Your task to perform on an android device: uninstall "Viber Messenger" Image 0: 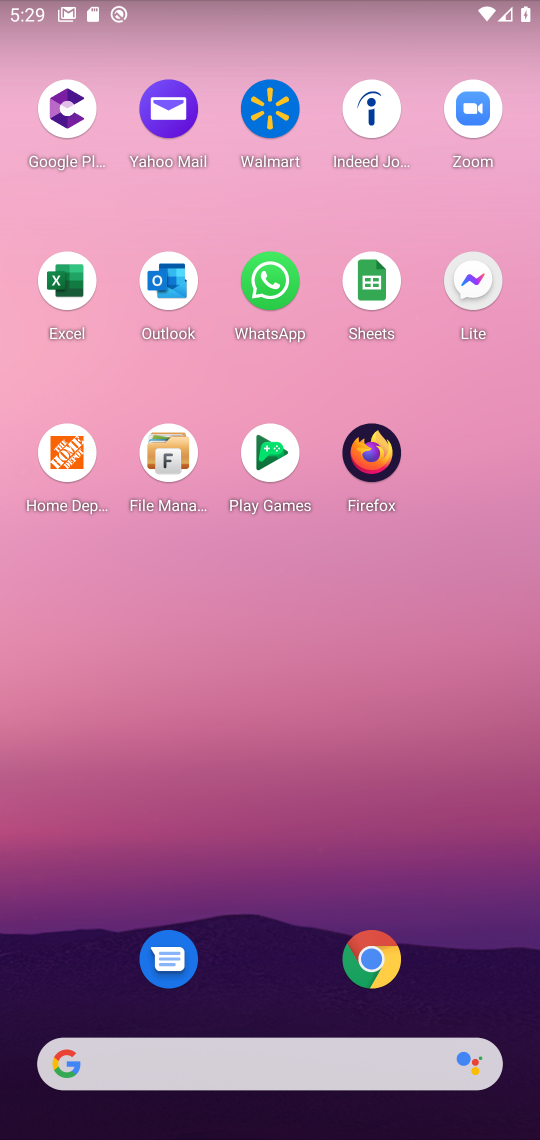
Step 0: drag from (253, 1014) to (292, 368)
Your task to perform on an android device: uninstall "Viber Messenger" Image 1: 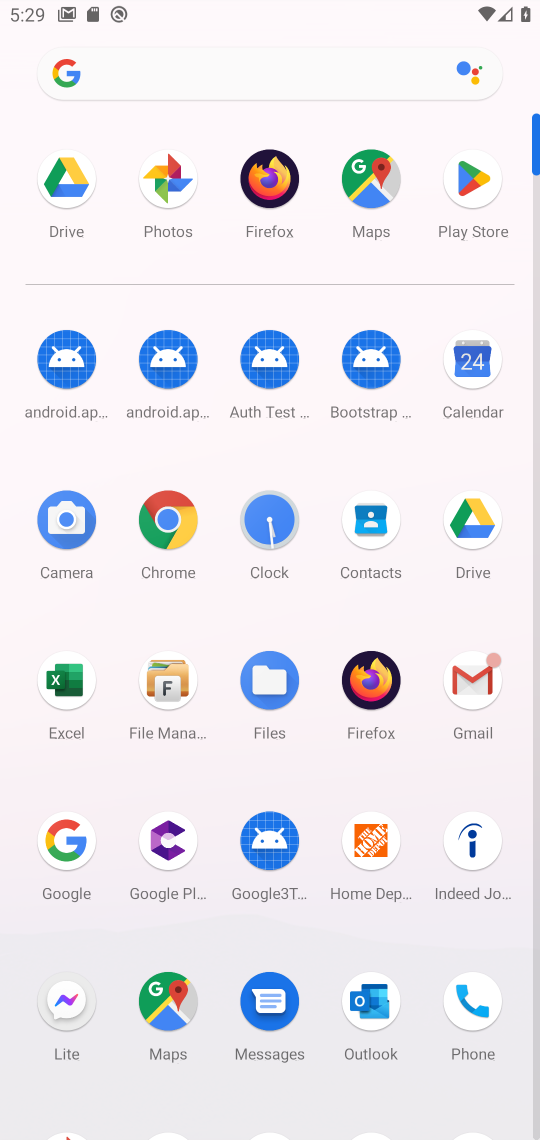
Step 1: click (467, 187)
Your task to perform on an android device: uninstall "Viber Messenger" Image 2: 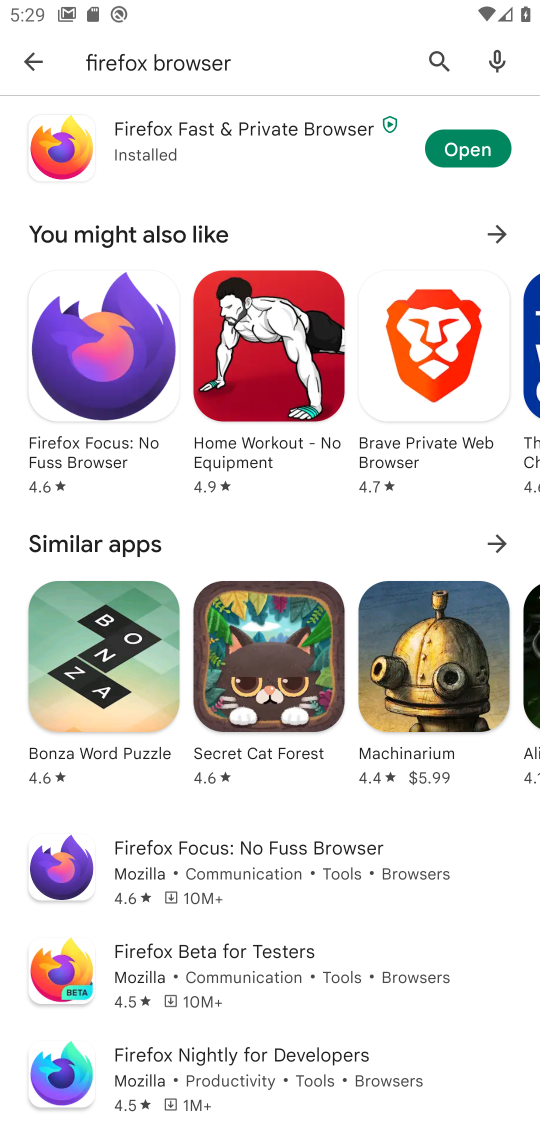
Step 2: click (436, 53)
Your task to perform on an android device: uninstall "Viber Messenger" Image 3: 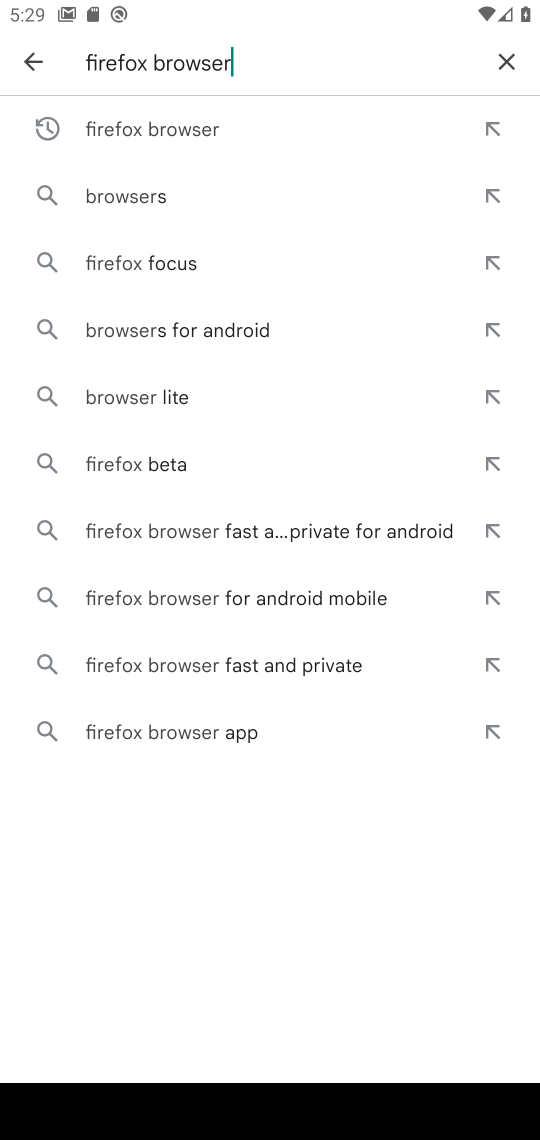
Step 3: click (493, 71)
Your task to perform on an android device: uninstall "Viber Messenger" Image 4: 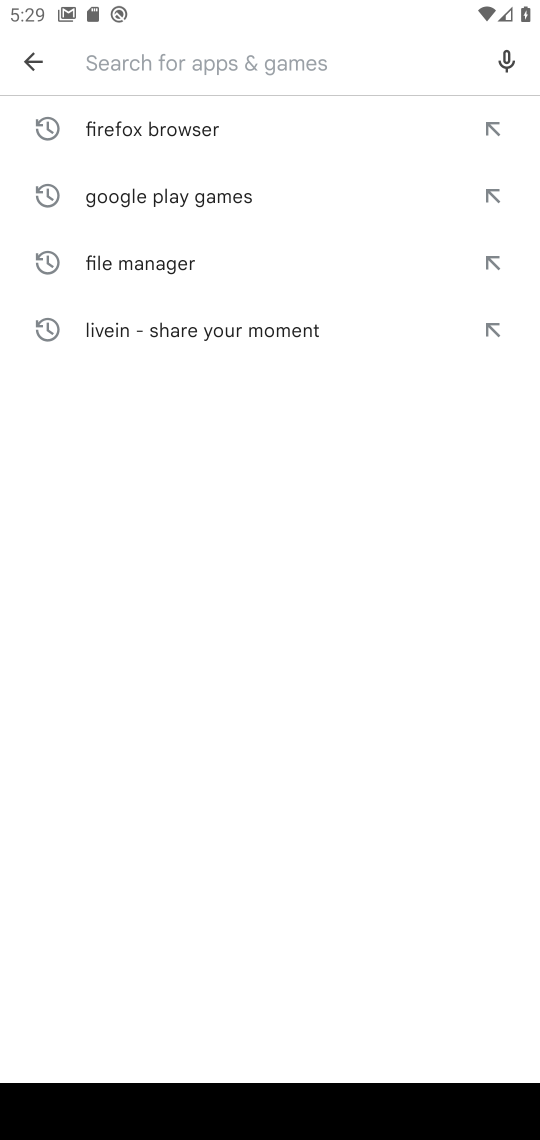
Step 4: type "Viber Messenger"
Your task to perform on an android device: uninstall "Viber Messenger" Image 5: 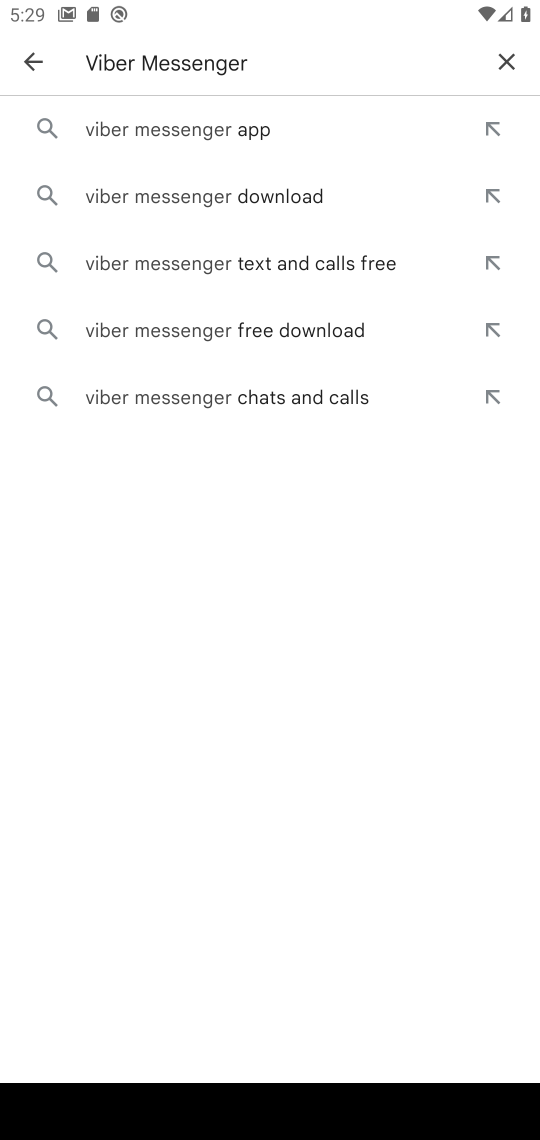
Step 5: click (133, 137)
Your task to perform on an android device: uninstall "Viber Messenger" Image 6: 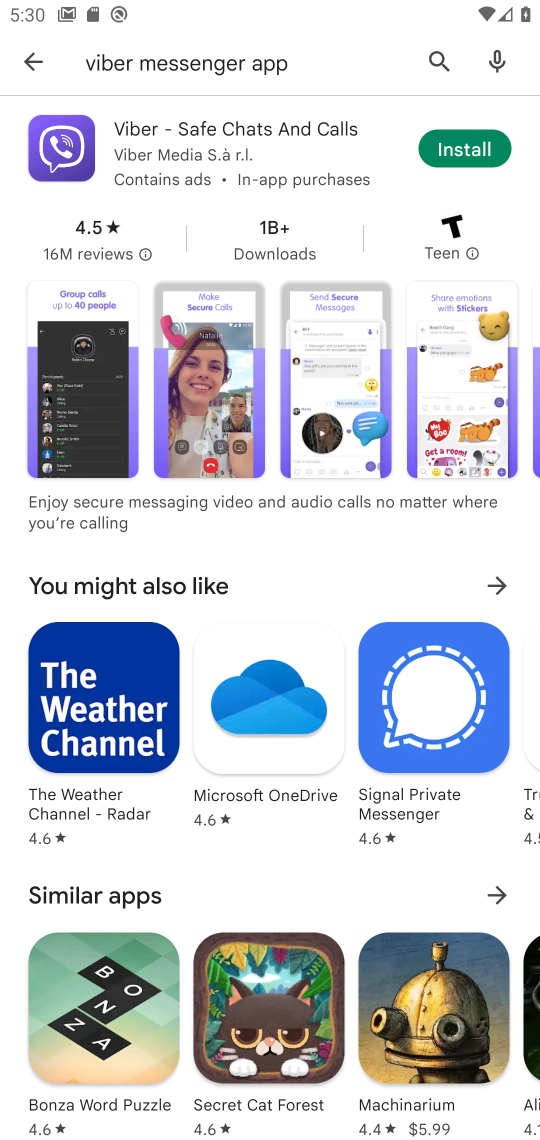
Step 6: task complete